Your task to perform on an android device: Do I have any events today? Image 0: 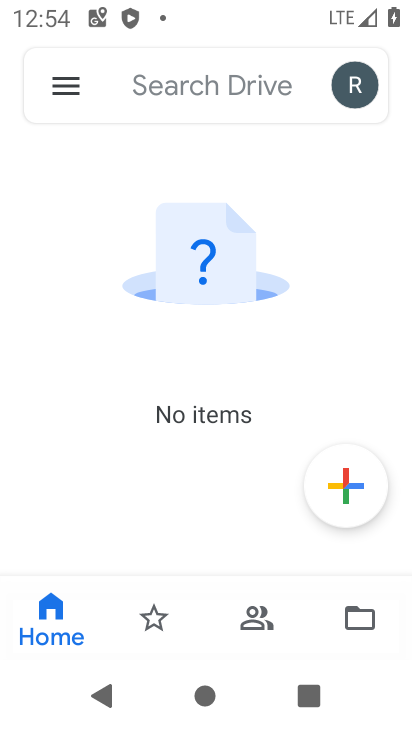
Step 0: press home button
Your task to perform on an android device: Do I have any events today? Image 1: 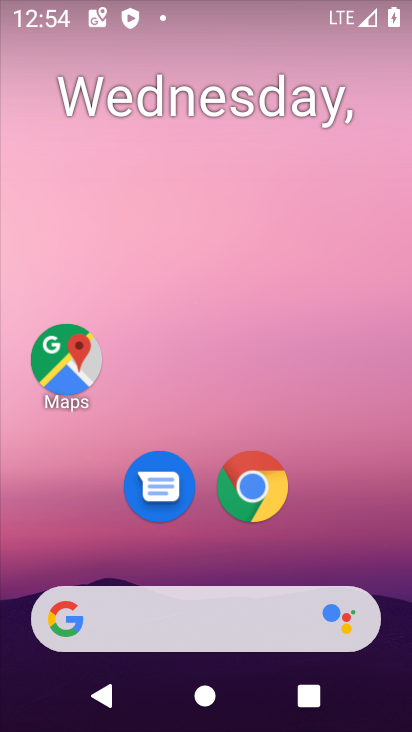
Step 1: drag from (376, 553) to (345, 54)
Your task to perform on an android device: Do I have any events today? Image 2: 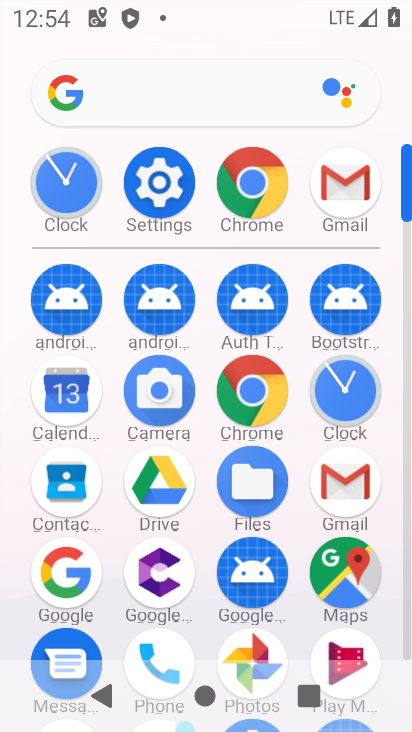
Step 2: click (84, 404)
Your task to perform on an android device: Do I have any events today? Image 3: 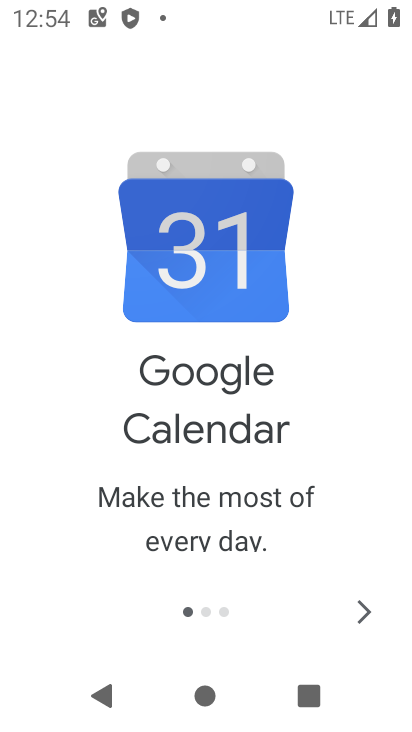
Step 3: click (364, 611)
Your task to perform on an android device: Do I have any events today? Image 4: 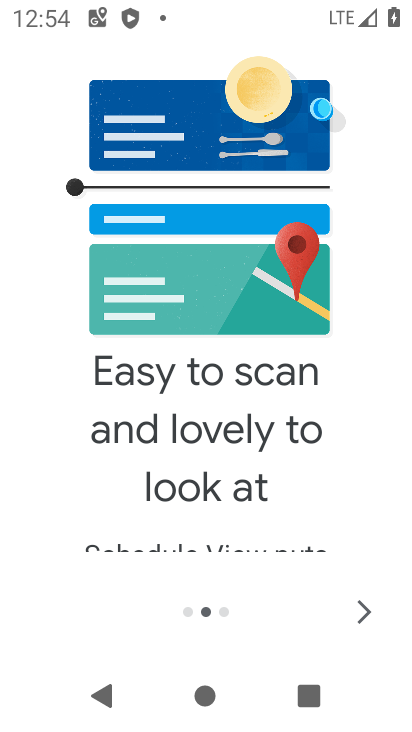
Step 4: click (364, 611)
Your task to perform on an android device: Do I have any events today? Image 5: 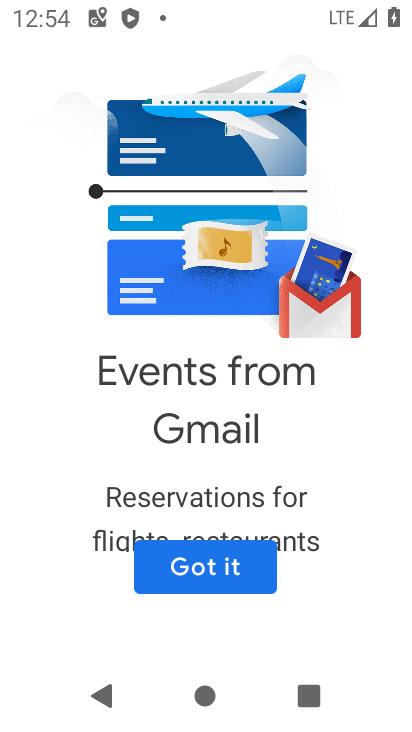
Step 5: click (240, 572)
Your task to perform on an android device: Do I have any events today? Image 6: 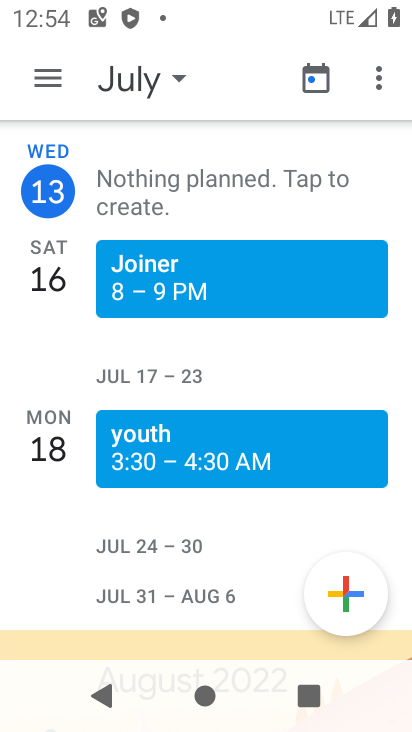
Step 6: task complete